Your task to perform on an android device: When is my next appointment? Image 0: 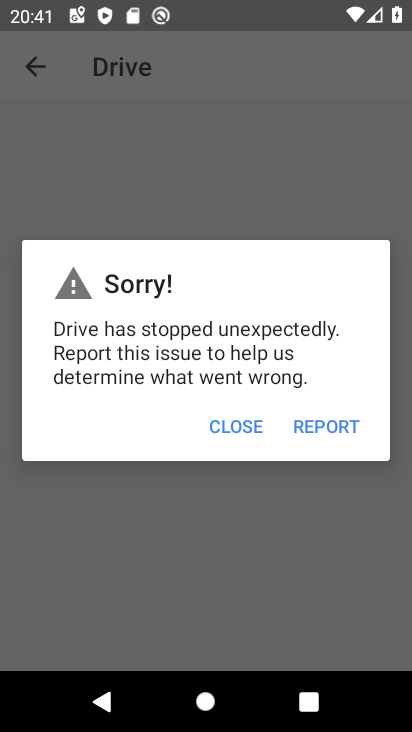
Step 0: press home button
Your task to perform on an android device: When is my next appointment? Image 1: 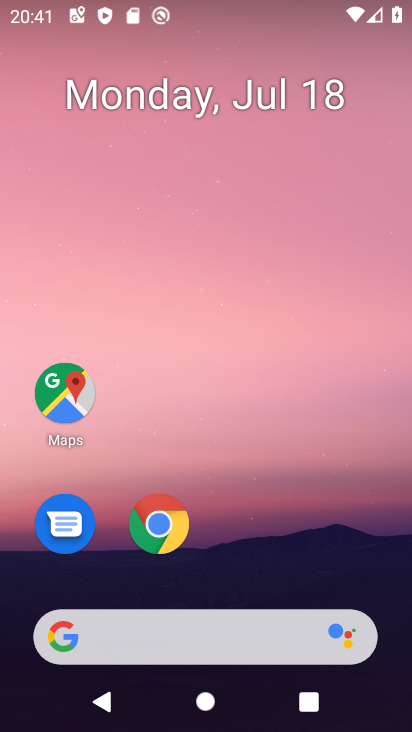
Step 1: drag from (267, 524) to (279, 38)
Your task to perform on an android device: When is my next appointment? Image 2: 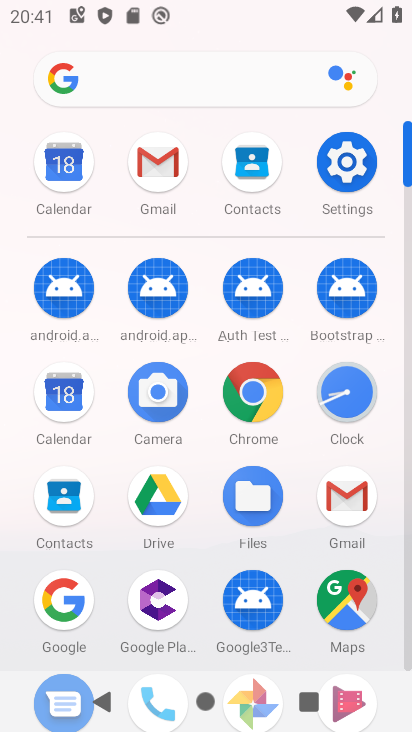
Step 2: click (77, 155)
Your task to perform on an android device: When is my next appointment? Image 3: 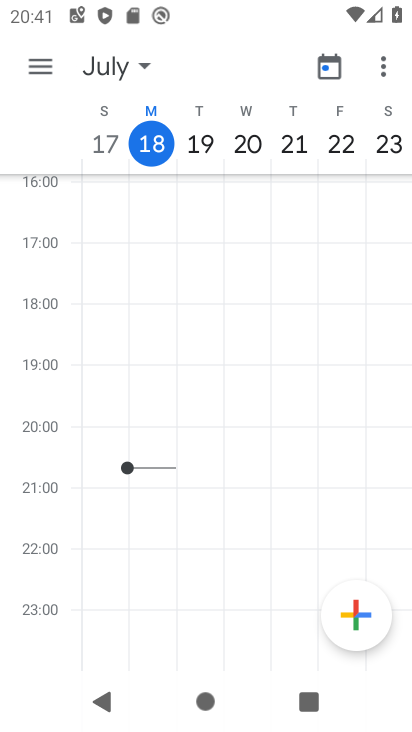
Step 3: click (152, 139)
Your task to perform on an android device: When is my next appointment? Image 4: 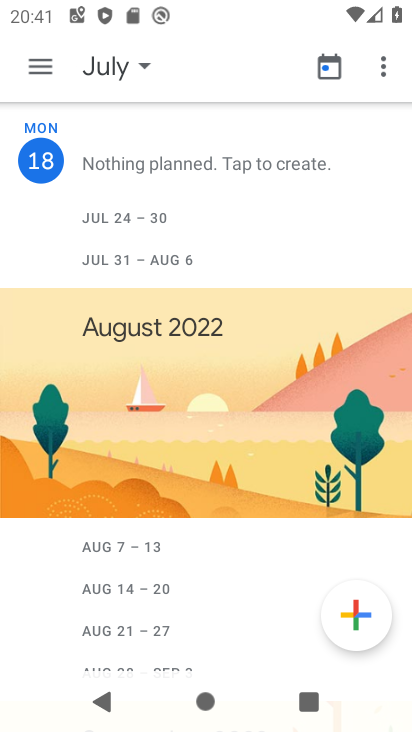
Step 4: task complete